Your task to perform on an android device: Go to Google Image 0: 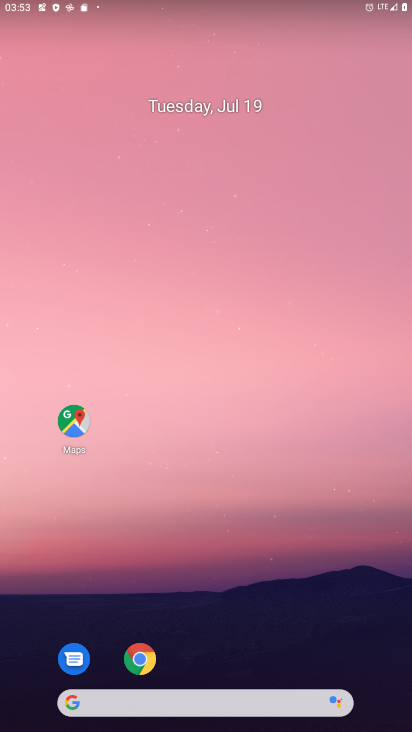
Step 0: press home button
Your task to perform on an android device: Go to Google Image 1: 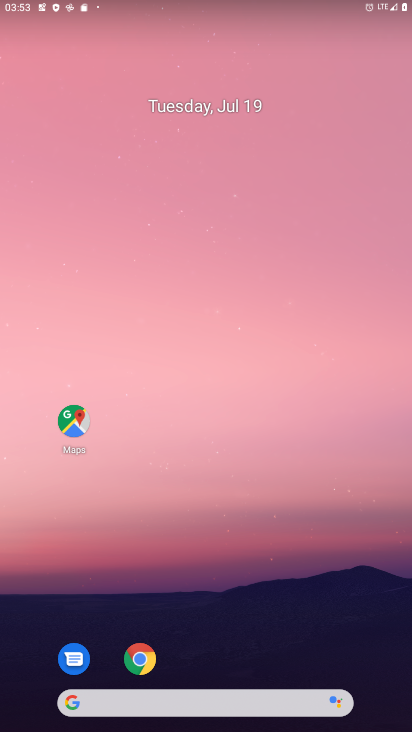
Step 1: drag from (249, 636) to (263, 235)
Your task to perform on an android device: Go to Google Image 2: 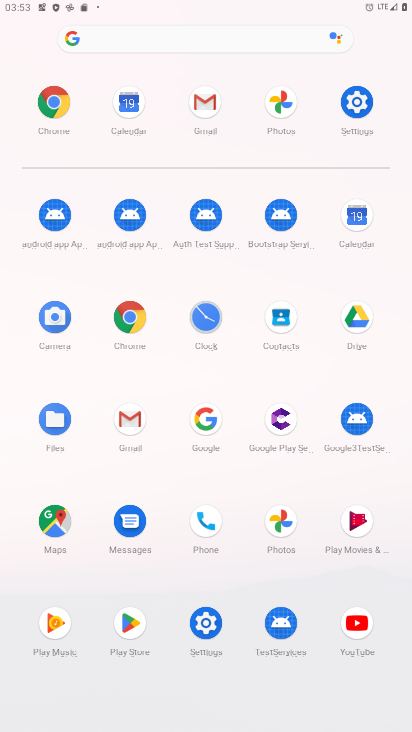
Step 2: click (203, 450)
Your task to perform on an android device: Go to Google Image 3: 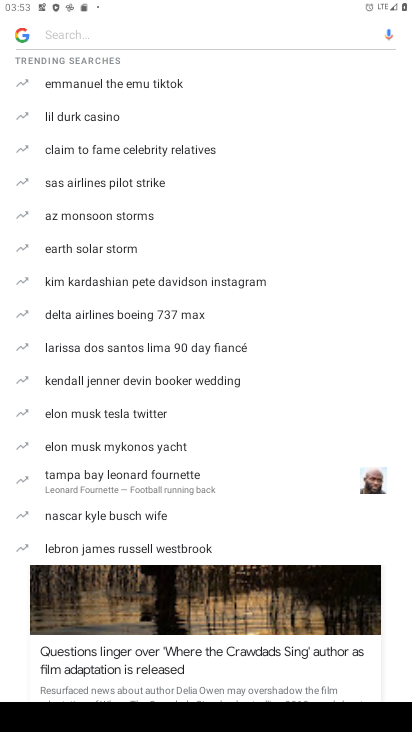
Step 3: task complete